Your task to perform on an android device: install app "Booking.com: Hotels and more" Image 0: 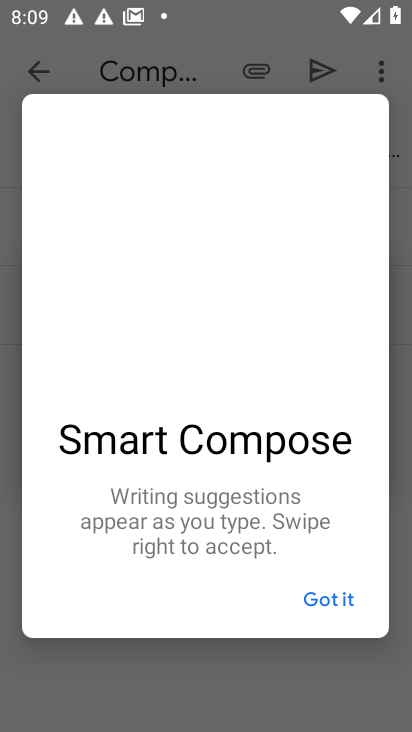
Step 0: drag from (195, 566) to (186, 1)
Your task to perform on an android device: install app "Booking.com: Hotels and more" Image 1: 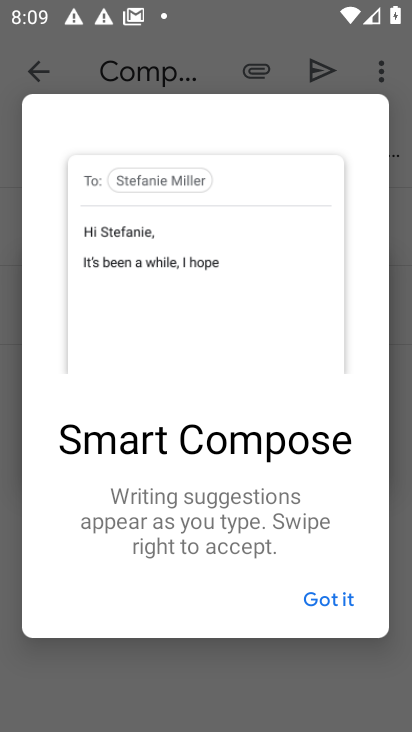
Step 1: press home button
Your task to perform on an android device: install app "Booking.com: Hotels and more" Image 2: 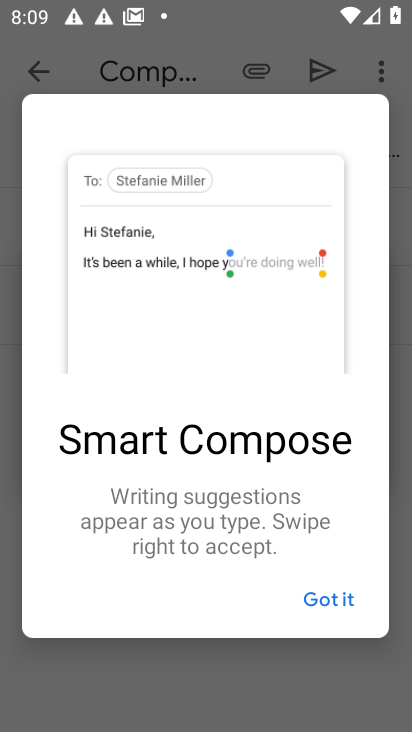
Step 2: drag from (186, 1) to (375, 388)
Your task to perform on an android device: install app "Booking.com: Hotels and more" Image 3: 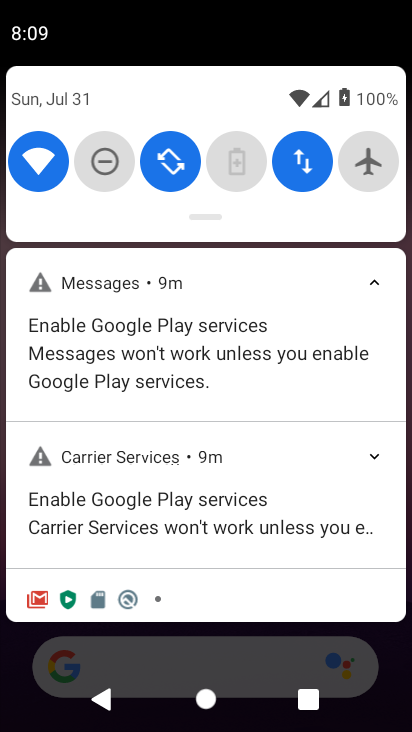
Step 3: drag from (194, 664) to (230, 0)
Your task to perform on an android device: install app "Booking.com: Hotels and more" Image 4: 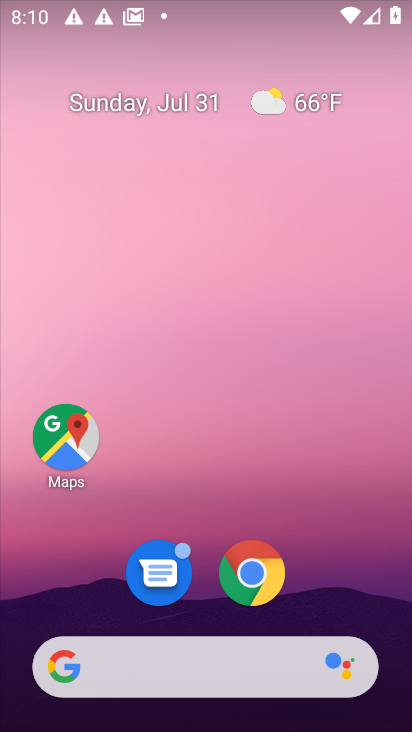
Step 4: drag from (193, 398) to (25, 9)
Your task to perform on an android device: install app "Booking.com: Hotels and more" Image 5: 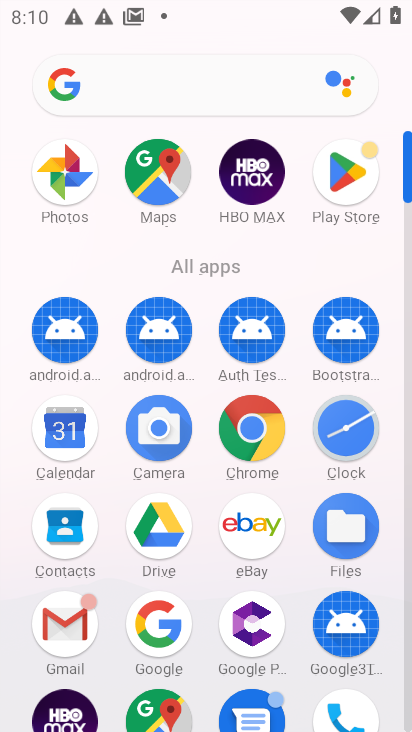
Step 5: click (357, 192)
Your task to perform on an android device: install app "Booking.com: Hotels and more" Image 6: 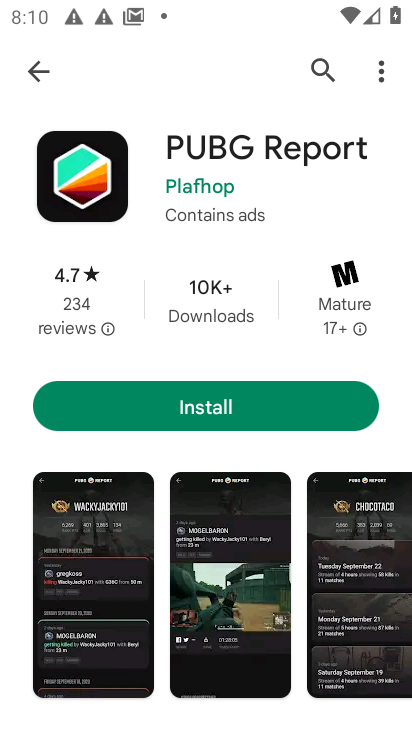
Step 6: click (27, 67)
Your task to perform on an android device: install app "Booking.com: Hotels and more" Image 7: 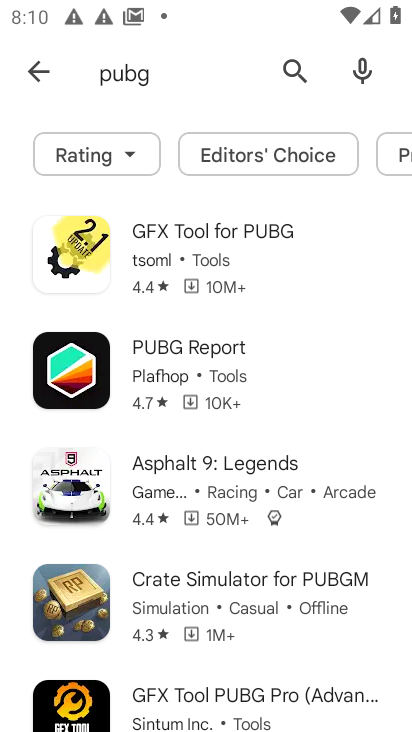
Step 7: click (128, 78)
Your task to perform on an android device: install app "Booking.com: Hotels and more" Image 8: 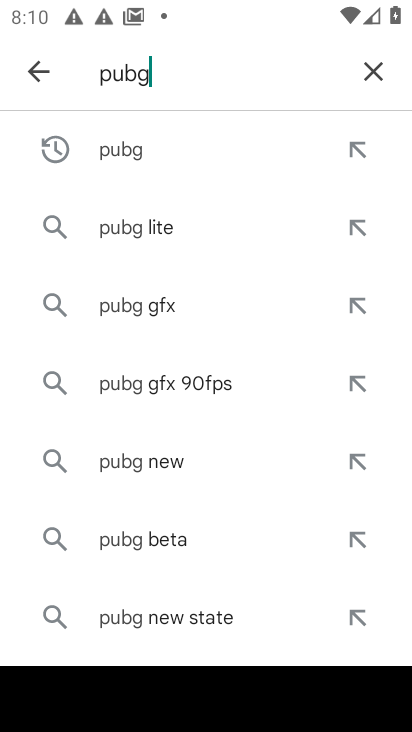
Step 8: click (374, 66)
Your task to perform on an android device: install app "Booking.com: Hotels and more" Image 9: 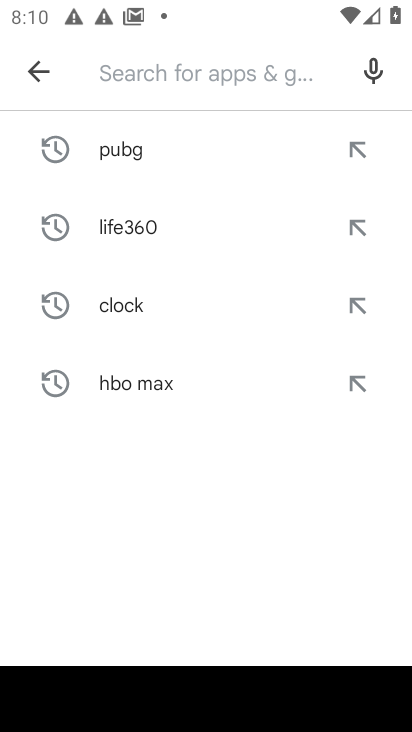
Step 9: type "Booking.com"
Your task to perform on an android device: install app "Booking.com: Hotels and more" Image 10: 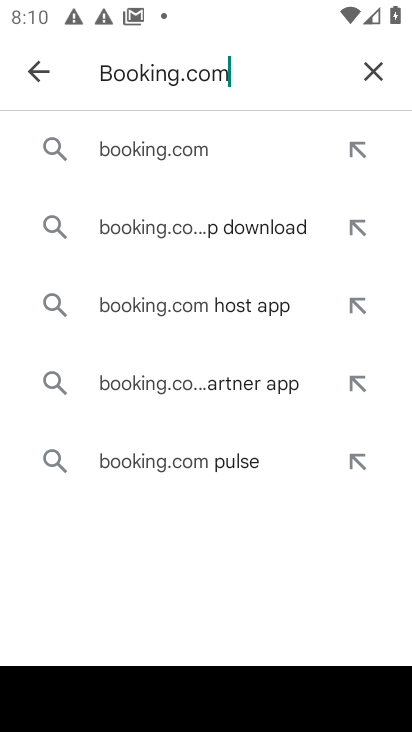
Step 10: click (168, 154)
Your task to perform on an android device: install app "Booking.com: Hotels and more" Image 11: 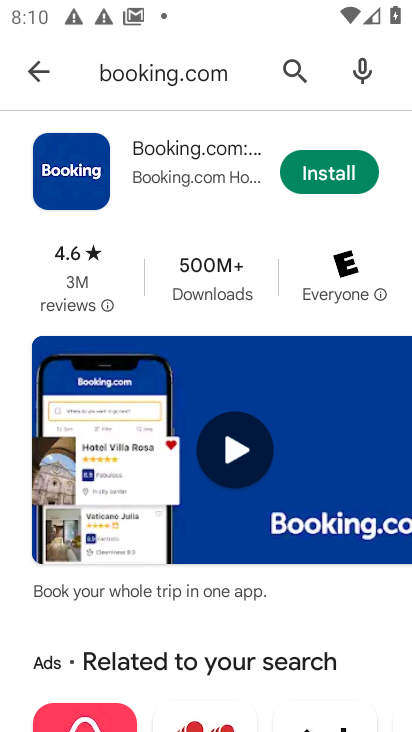
Step 11: click (349, 182)
Your task to perform on an android device: install app "Booking.com: Hotels and more" Image 12: 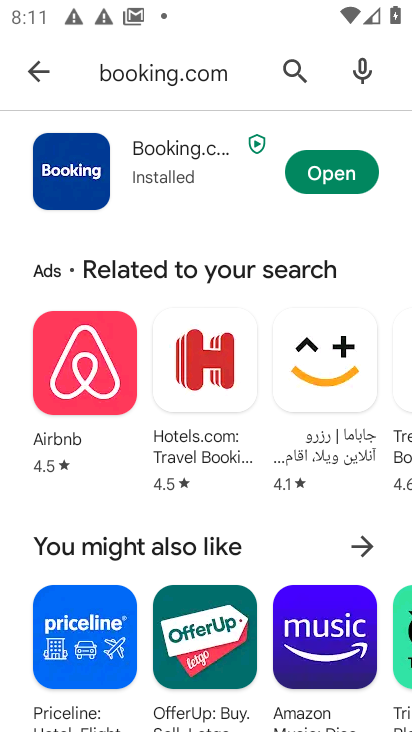
Step 12: task complete